Your task to perform on an android device: open chrome privacy settings Image 0: 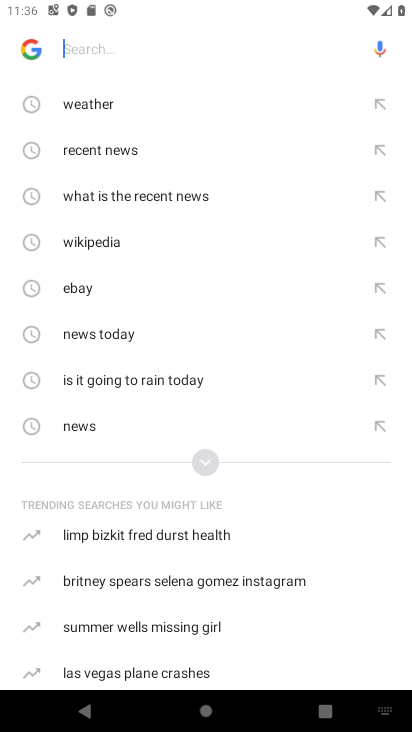
Step 0: press home button
Your task to perform on an android device: open chrome privacy settings Image 1: 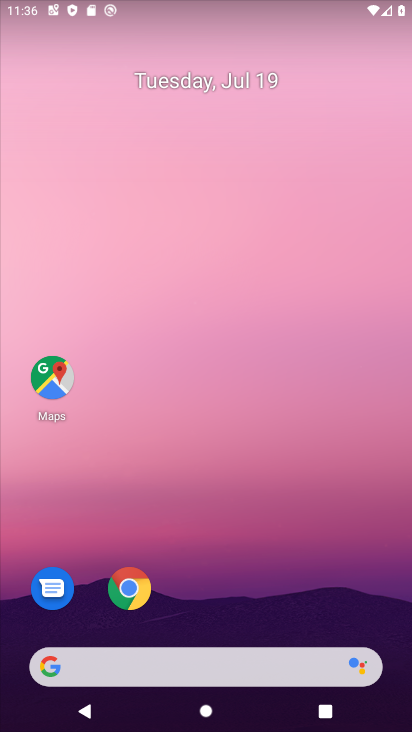
Step 1: click (130, 593)
Your task to perform on an android device: open chrome privacy settings Image 2: 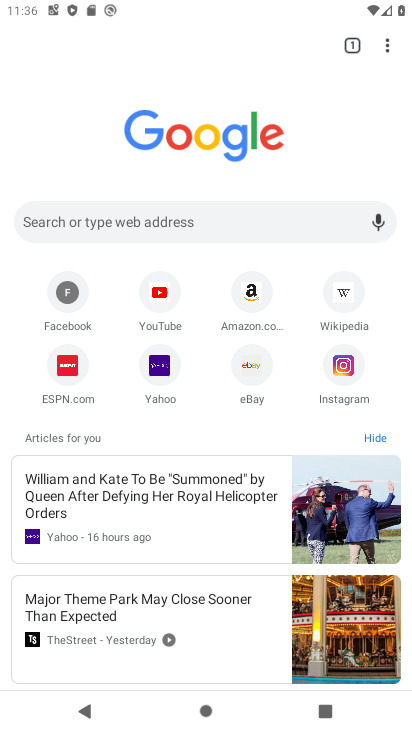
Step 2: click (387, 49)
Your task to perform on an android device: open chrome privacy settings Image 3: 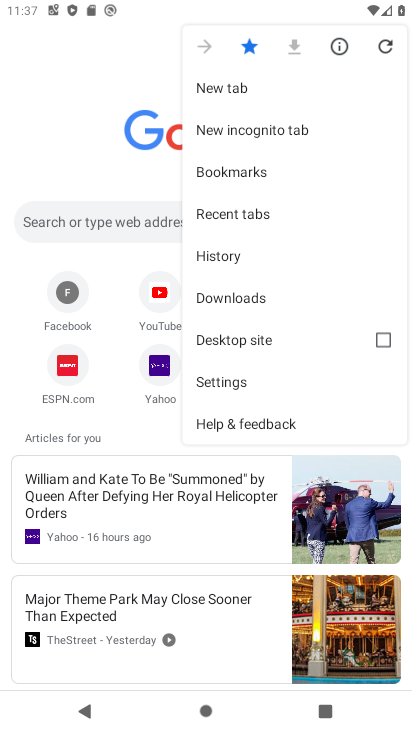
Step 3: click (223, 392)
Your task to perform on an android device: open chrome privacy settings Image 4: 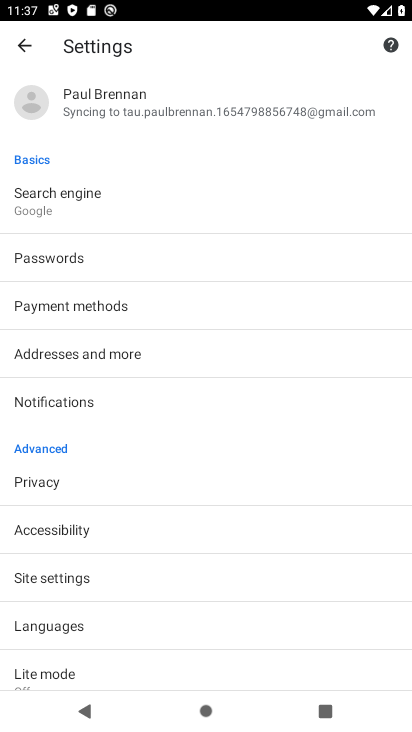
Step 4: click (45, 487)
Your task to perform on an android device: open chrome privacy settings Image 5: 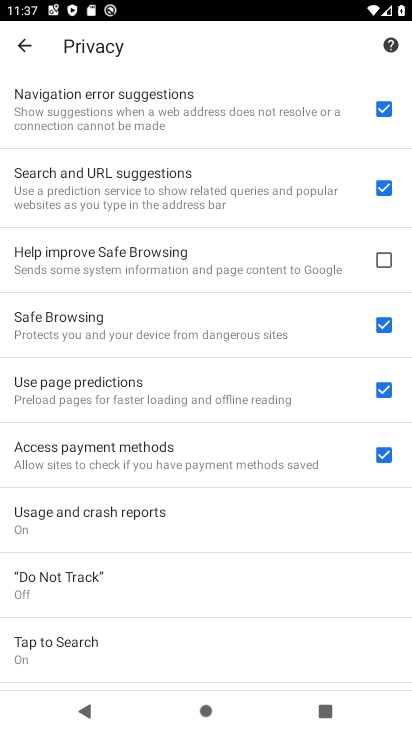
Step 5: task complete